Your task to perform on an android device: delete the emails in spam in the gmail app Image 0: 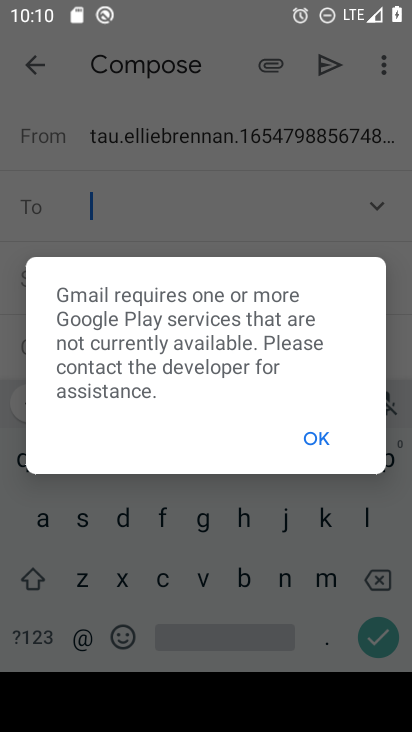
Step 0: press home button
Your task to perform on an android device: delete the emails in spam in the gmail app Image 1: 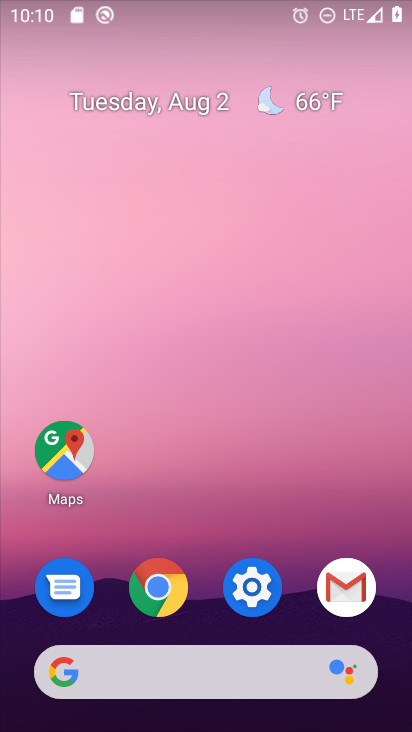
Step 1: click (339, 582)
Your task to perform on an android device: delete the emails in spam in the gmail app Image 2: 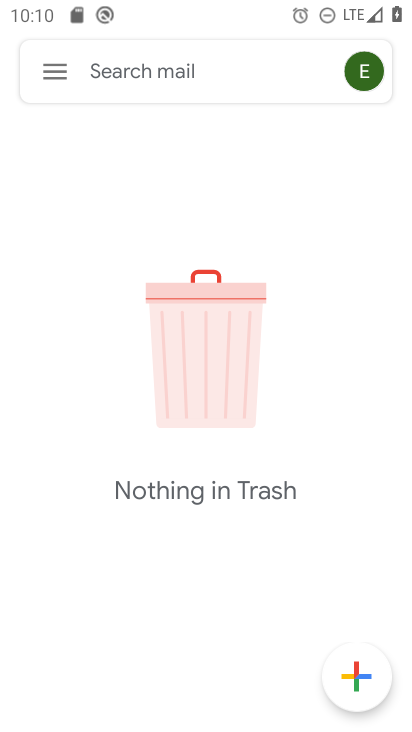
Step 2: click (47, 85)
Your task to perform on an android device: delete the emails in spam in the gmail app Image 3: 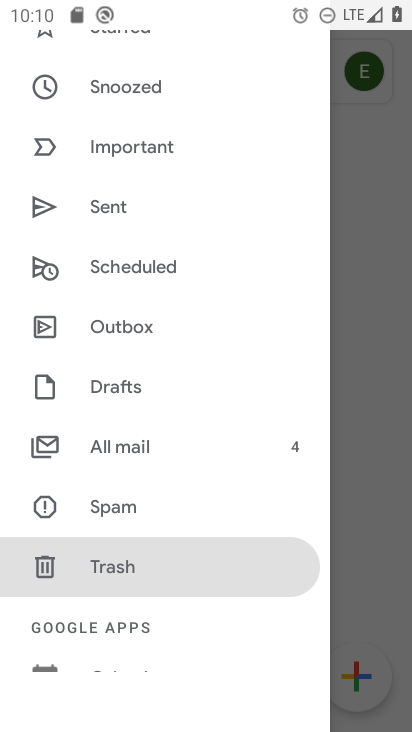
Step 3: click (121, 504)
Your task to perform on an android device: delete the emails in spam in the gmail app Image 4: 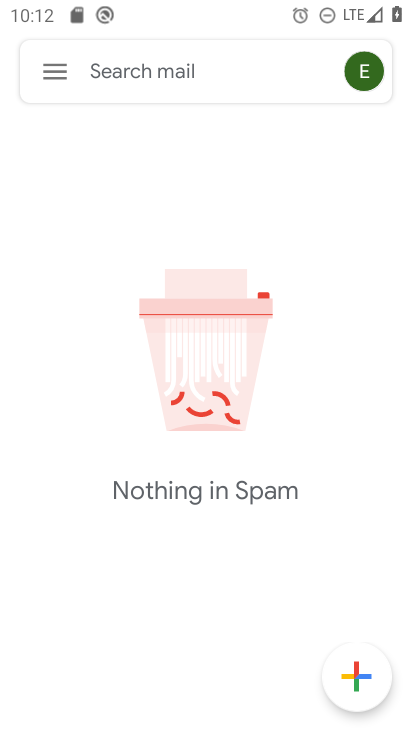
Step 4: task complete